Your task to perform on an android device: open chrome and create a bookmark for the current page Image 0: 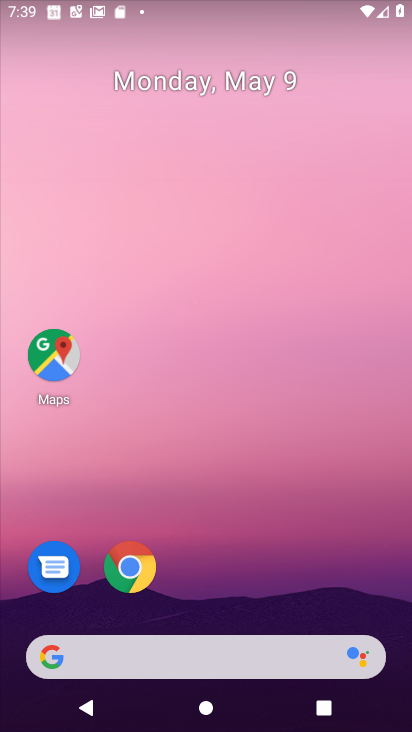
Step 0: drag from (181, 618) to (209, 93)
Your task to perform on an android device: open chrome and create a bookmark for the current page Image 1: 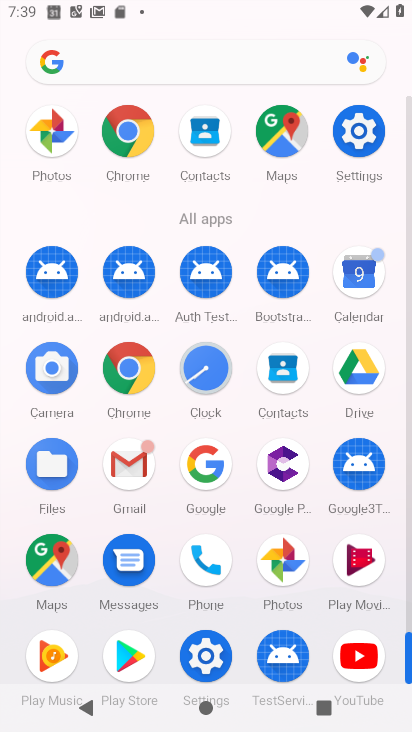
Step 1: click (130, 122)
Your task to perform on an android device: open chrome and create a bookmark for the current page Image 2: 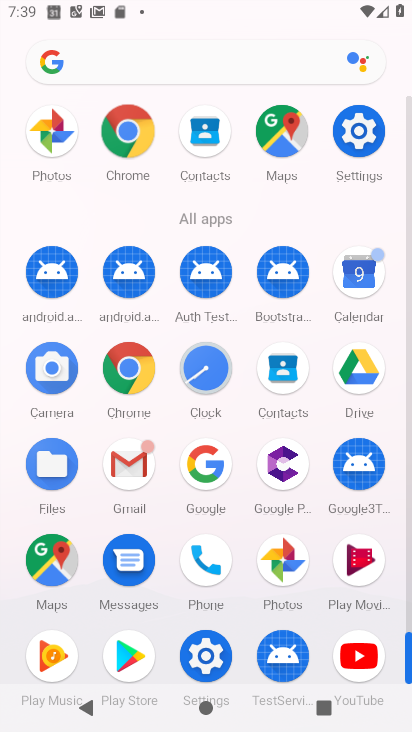
Step 2: click (130, 122)
Your task to perform on an android device: open chrome and create a bookmark for the current page Image 3: 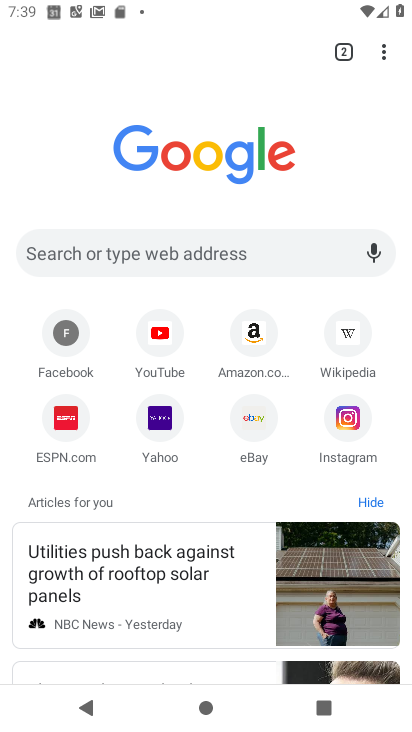
Step 3: click (243, 334)
Your task to perform on an android device: open chrome and create a bookmark for the current page Image 4: 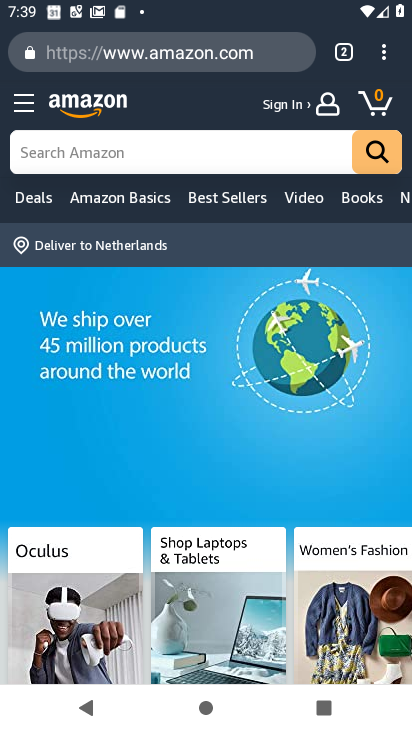
Step 4: click (380, 49)
Your task to perform on an android device: open chrome and create a bookmark for the current page Image 5: 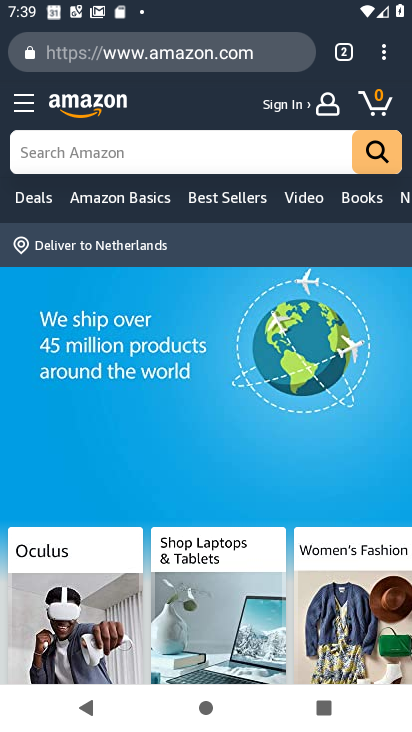
Step 5: drag from (387, 63) to (224, 54)
Your task to perform on an android device: open chrome and create a bookmark for the current page Image 6: 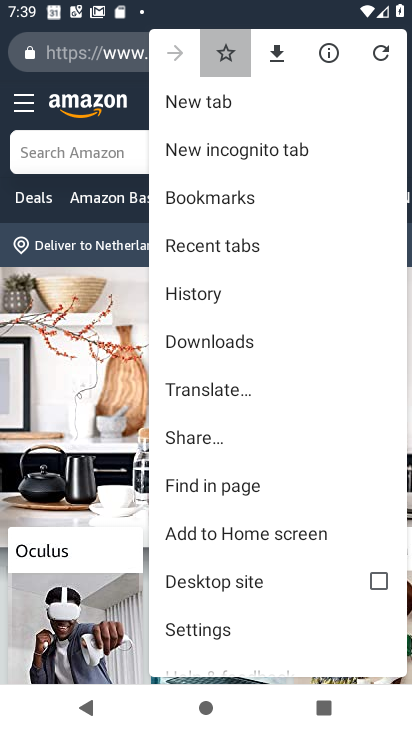
Step 6: click (224, 52)
Your task to perform on an android device: open chrome and create a bookmark for the current page Image 7: 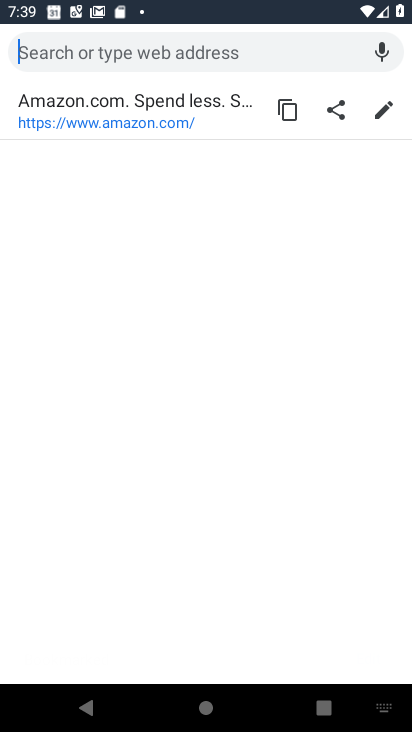
Step 7: task complete